Your task to perform on an android device: Go to Amazon Image 0: 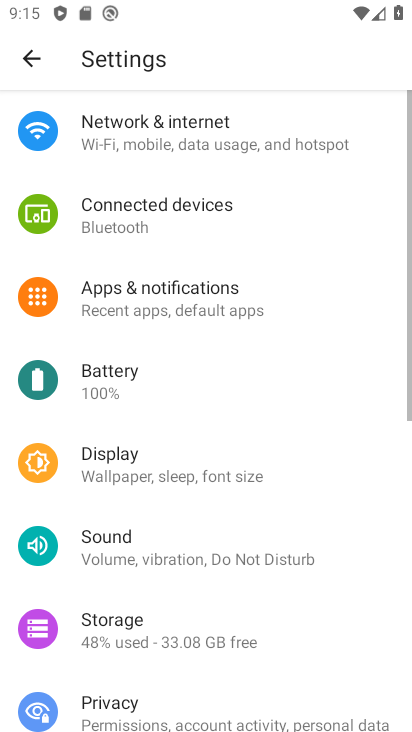
Step 0: press home button
Your task to perform on an android device: Go to Amazon Image 1: 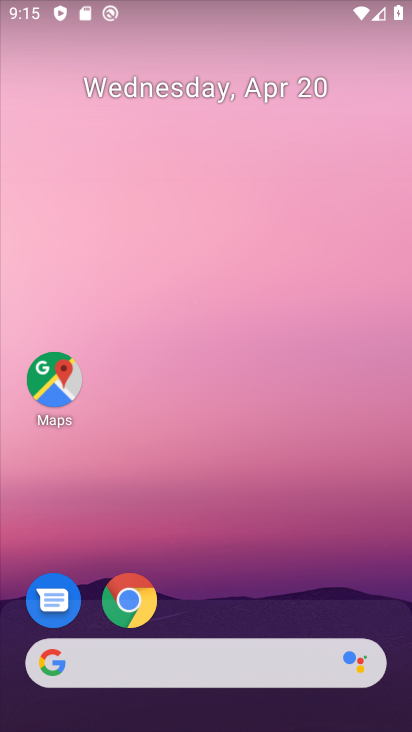
Step 1: click (129, 597)
Your task to perform on an android device: Go to Amazon Image 2: 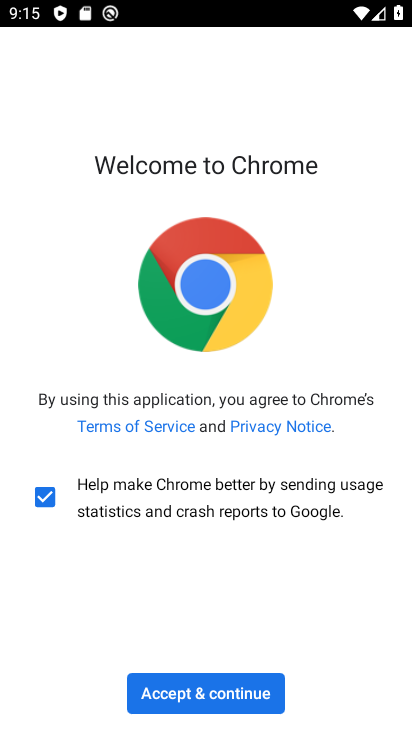
Step 2: click (201, 695)
Your task to perform on an android device: Go to Amazon Image 3: 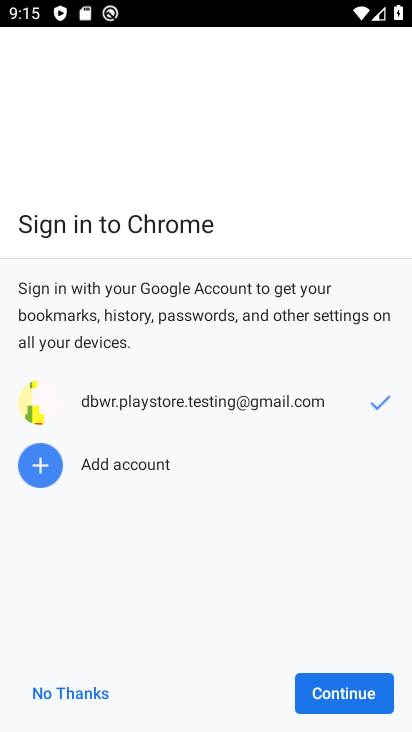
Step 3: click (77, 702)
Your task to perform on an android device: Go to Amazon Image 4: 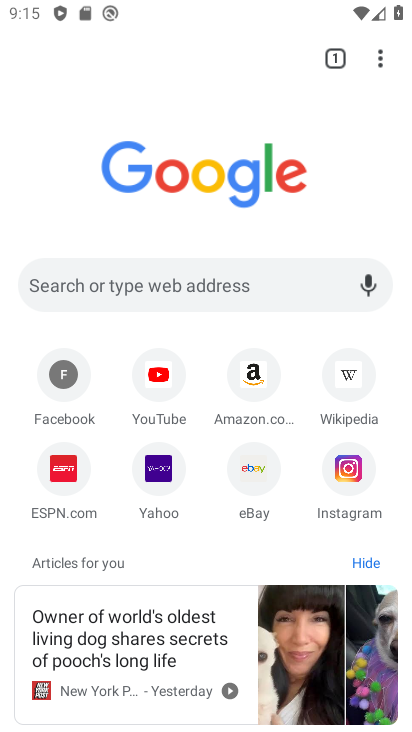
Step 4: click (247, 382)
Your task to perform on an android device: Go to Amazon Image 5: 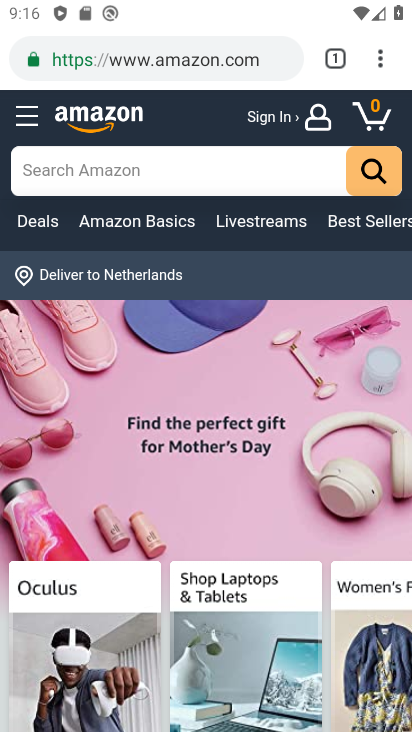
Step 5: task complete